Your task to perform on an android device: What's the weather today? Image 0: 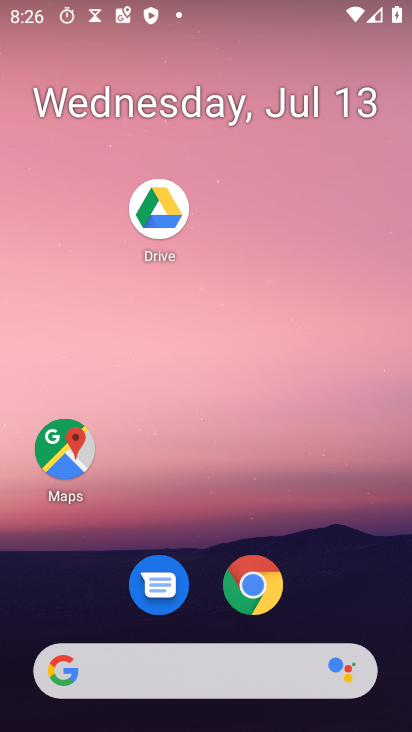
Step 0: click (174, 672)
Your task to perform on an android device: What's the weather today? Image 1: 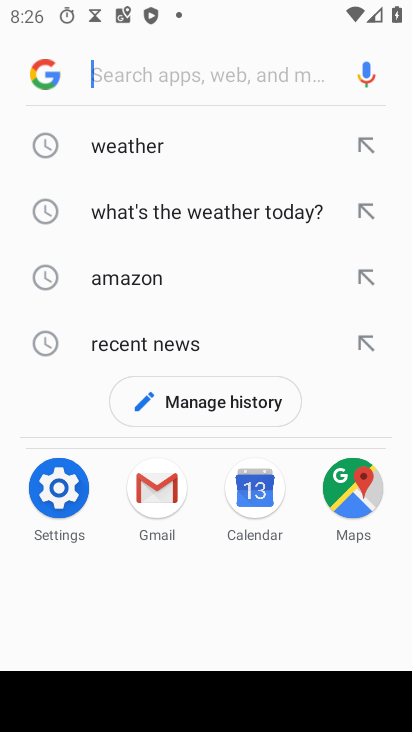
Step 1: click (146, 147)
Your task to perform on an android device: What's the weather today? Image 2: 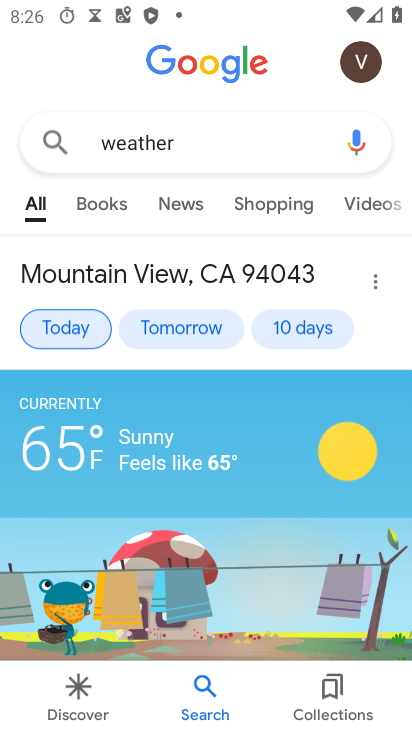
Step 2: task complete